Your task to perform on an android device: Open Chrome and go to settings Image 0: 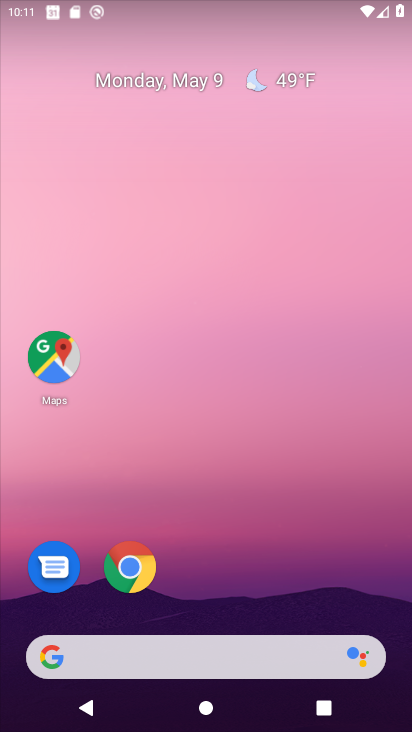
Step 0: click (127, 568)
Your task to perform on an android device: Open Chrome and go to settings Image 1: 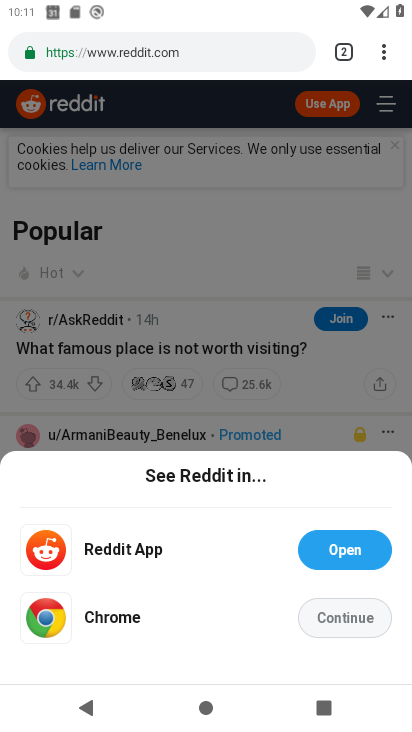
Step 1: click (382, 52)
Your task to perform on an android device: Open Chrome and go to settings Image 2: 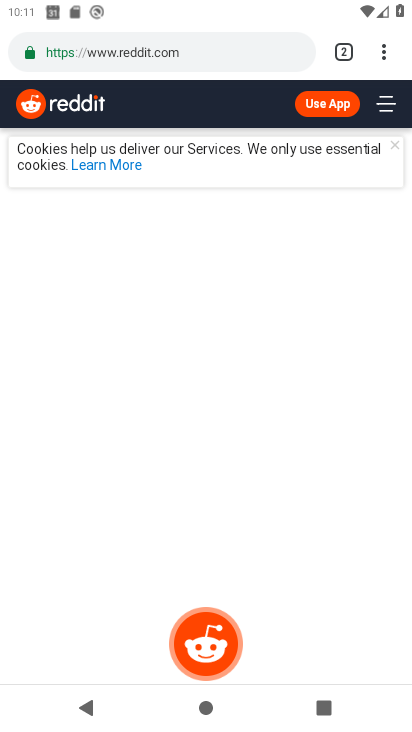
Step 2: click (378, 49)
Your task to perform on an android device: Open Chrome and go to settings Image 3: 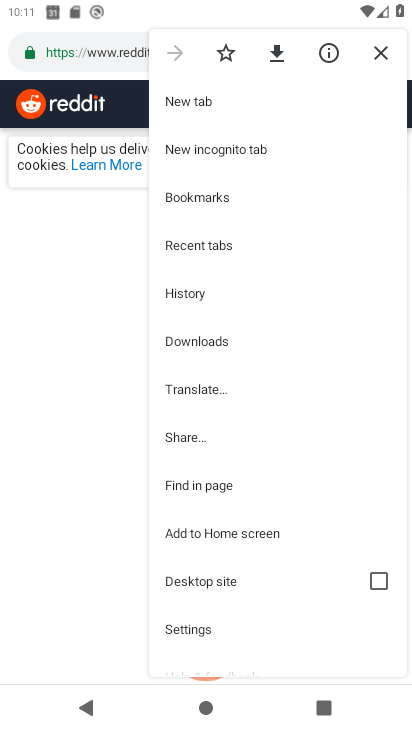
Step 3: click (185, 629)
Your task to perform on an android device: Open Chrome and go to settings Image 4: 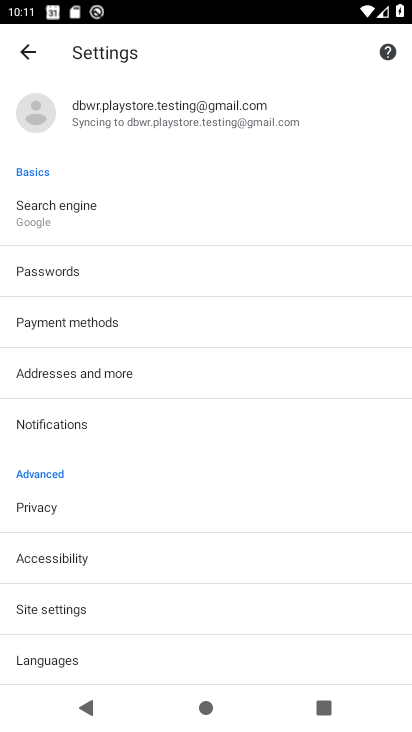
Step 4: task complete